Your task to perform on an android device: open a bookmark in the chrome app Image 0: 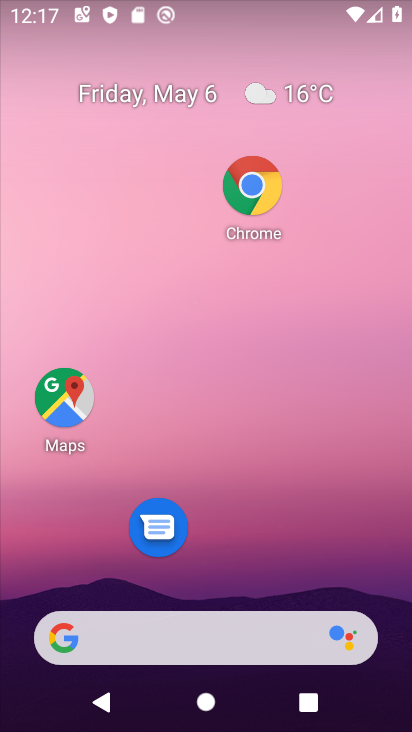
Step 0: click (261, 213)
Your task to perform on an android device: open a bookmark in the chrome app Image 1: 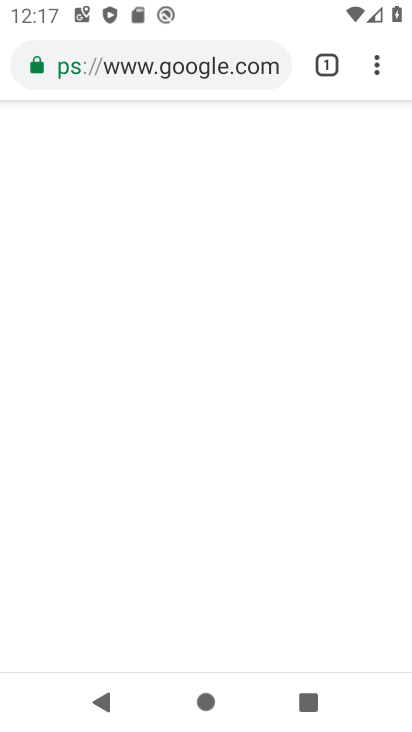
Step 1: click (369, 72)
Your task to perform on an android device: open a bookmark in the chrome app Image 2: 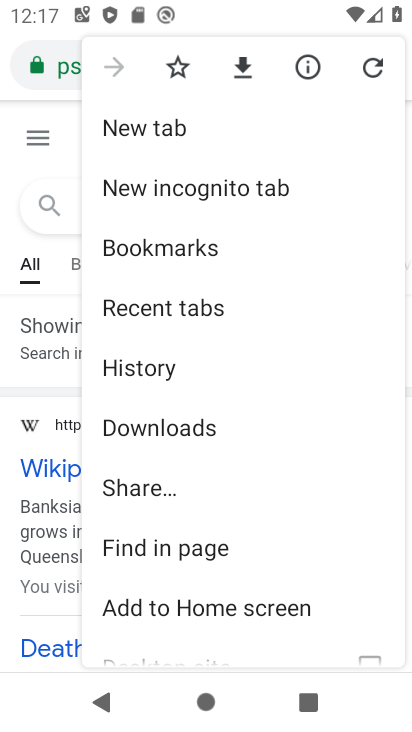
Step 2: click (213, 257)
Your task to perform on an android device: open a bookmark in the chrome app Image 3: 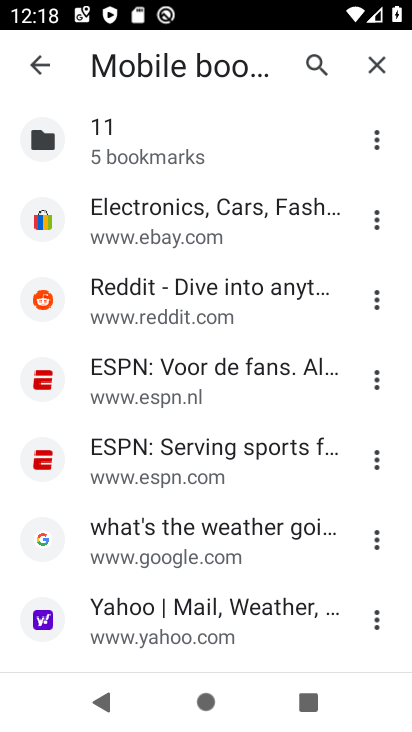
Step 3: click (176, 314)
Your task to perform on an android device: open a bookmark in the chrome app Image 4: 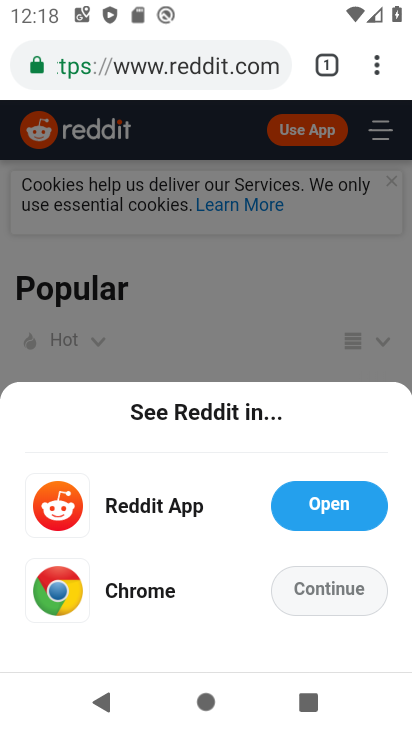
Step 4: task complete